Your task to perform on an android device: Do I have any events tomorrow? Image 0: 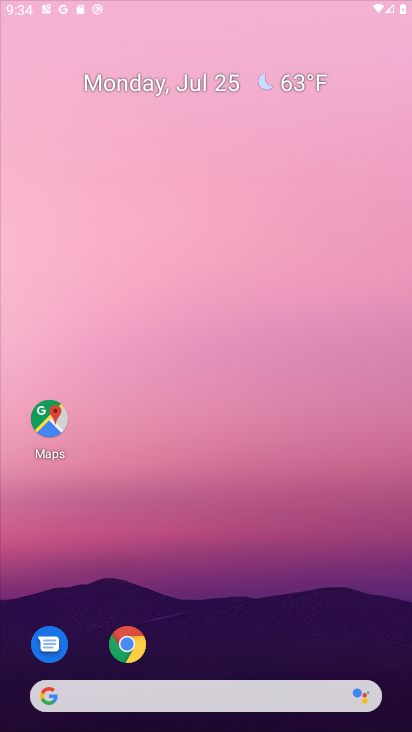
Step 0: drag from (282, 588) to (246, 77)
Your task to perform on an android device: Do I have any events tomorrow? Image 1: 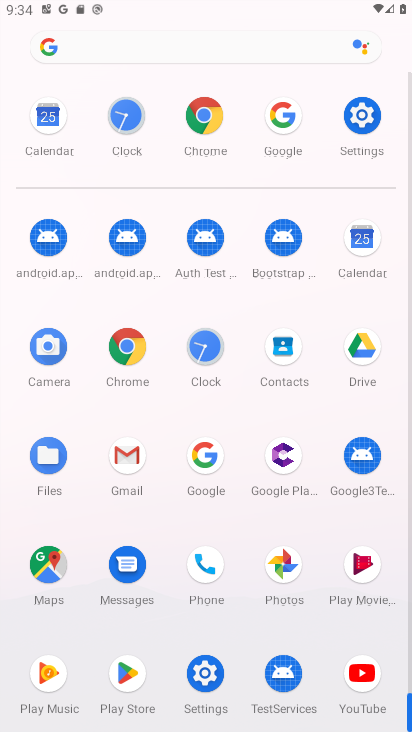
Step 1: click (355, 240)
Your task to perform on an android device: Do I have any events tomorrow? Image 2: 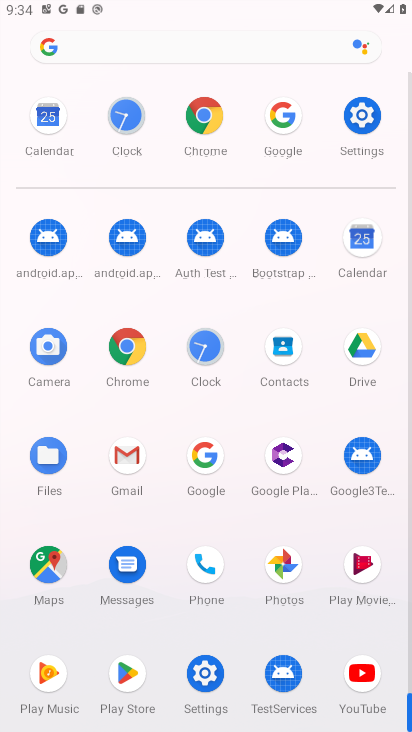
Step 2: click (355, 240)
Your task to perform on an android device: Do I have any events tomorrow? Image 3: 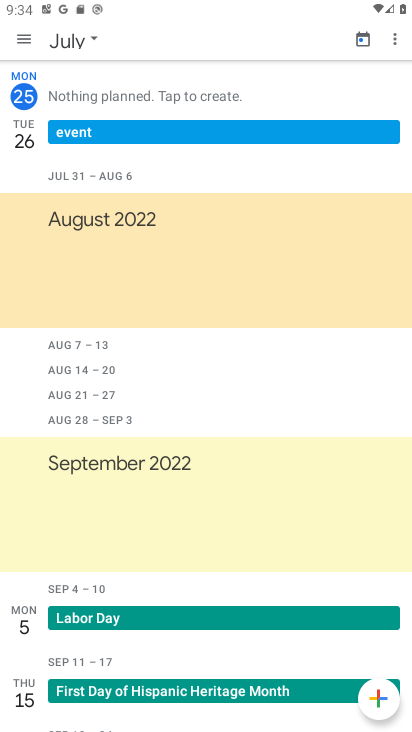
Step 3: click (93, 36)
Your task to perform on an android device: Do I have any events tomorrow? Image 4: 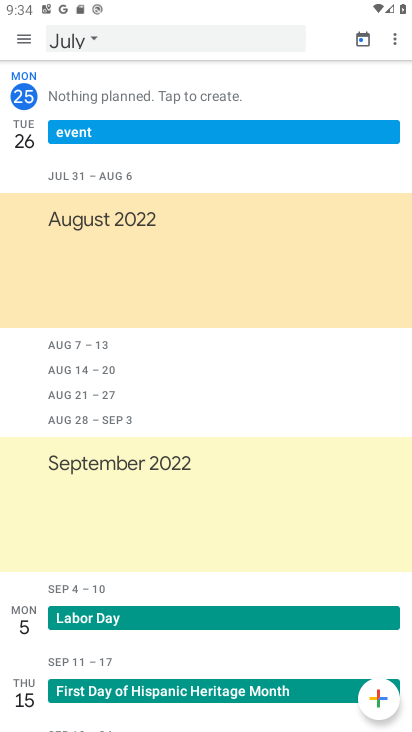
Step 4: click (94, 35)
Your task to perform on an android device: Do I have any events tomorrow? Image 5: 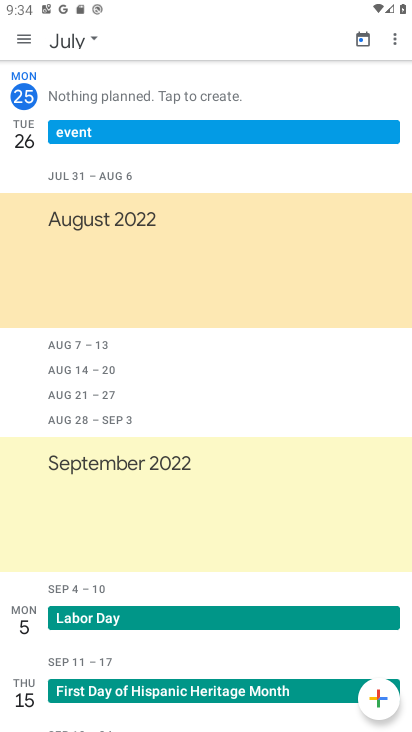
Step 5: click (95, 38)
Your task to perform on an android device: Do I have any events tomorrow? Image 6: 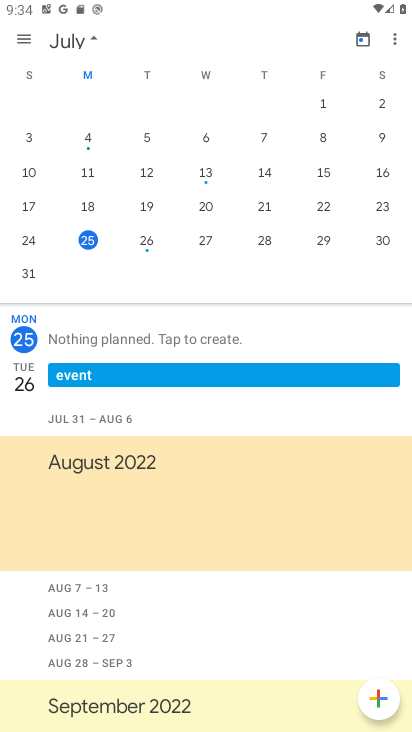
Step 6: click (191, 232)
Your task to perform on an android device: Do I have any events tomorrow? Image 7: 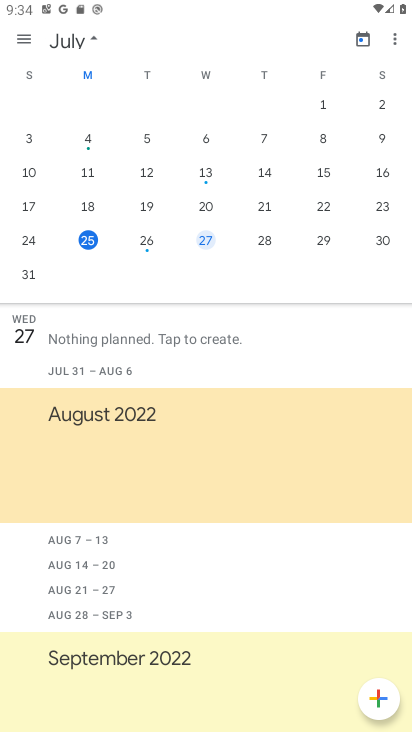
Step 7: click (192, 232)
Your task to perform on an android device: Do I have any events tomorrow? Image 8: 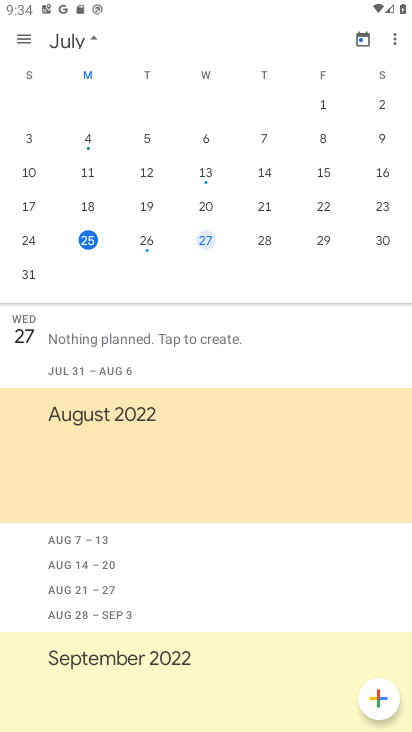
Step 8: click (196, 232)
Your task to perform on an android device: Do I have any events tomorrow? Image 9: 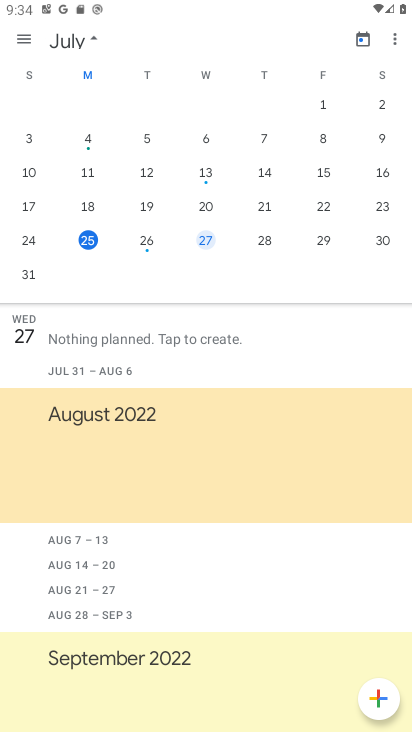
Step 9: click (206, 232)
Your task to perform on an android device: Do I have any events tomorrow? Image 10: 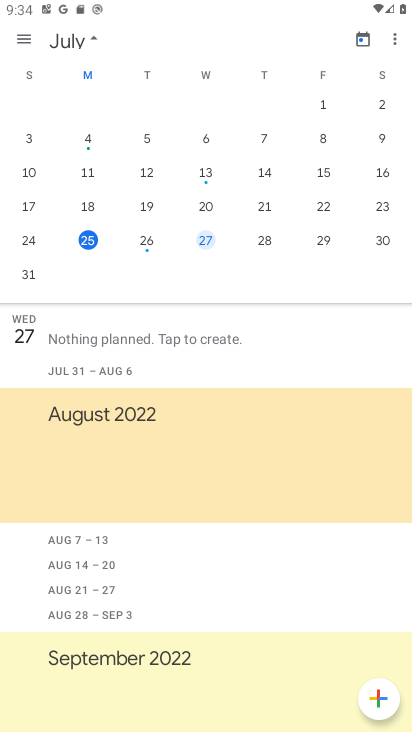
Step 10: task complete